Your task to perform on an android device: Show me popular videos on Youtube Image 0: 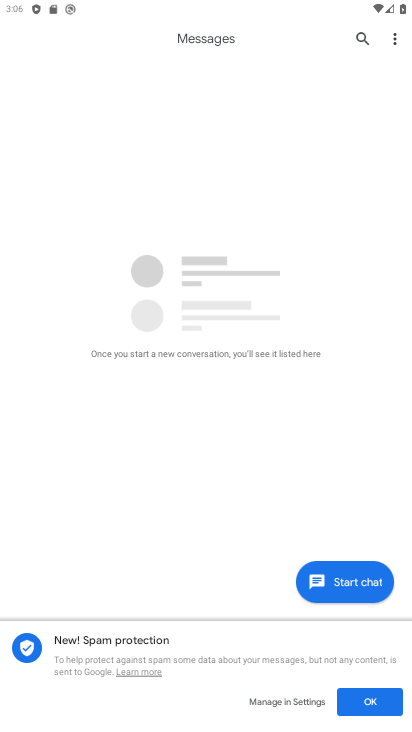
Step 0: press home button
Your task to perform on an android device: Show me popular videos on Youtube Image 1: 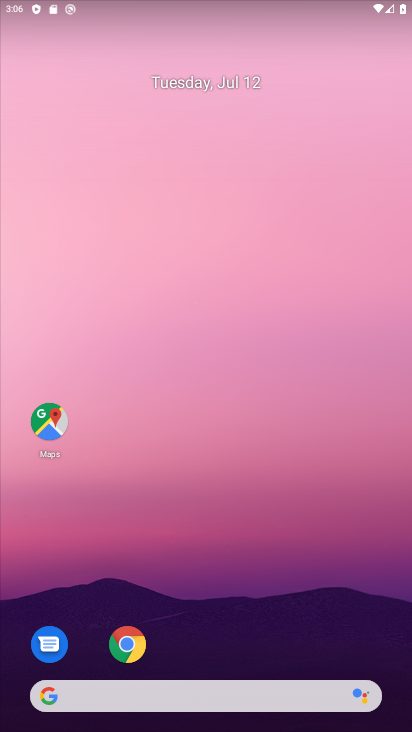
Step 1: drag from (315, 600) to (250, 98)
Your task to perform on an android device: Show me popular videos on Youtube Image 2: 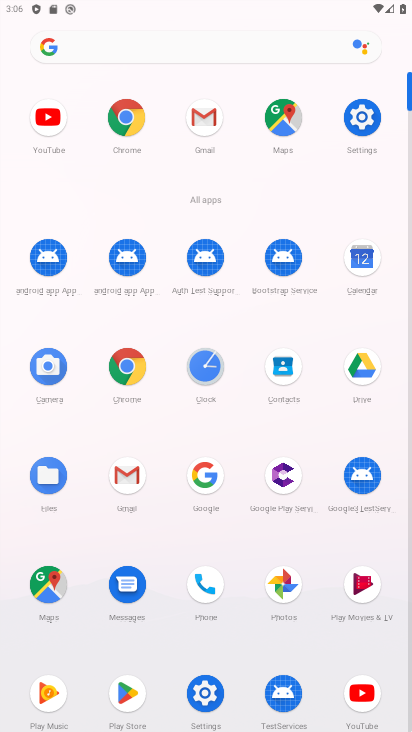
Step 2: click (47, 123)
Your task to perform on an android device: Show me popular videos on Youtube Image 3: 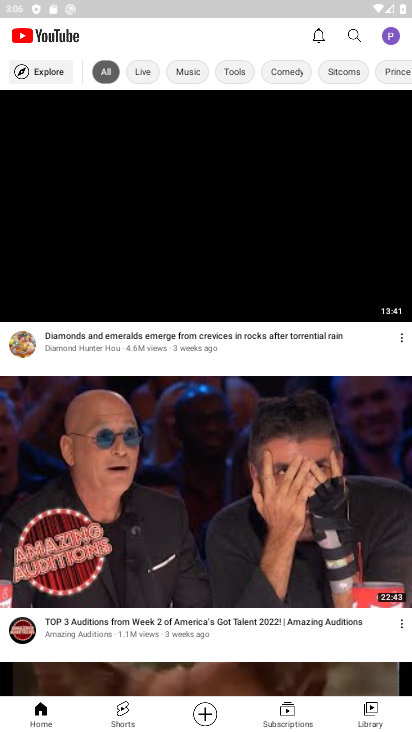
Step 3: click (53, 77)
Your task to perform on an android device: Show me popular videos on Youtube Image 4: 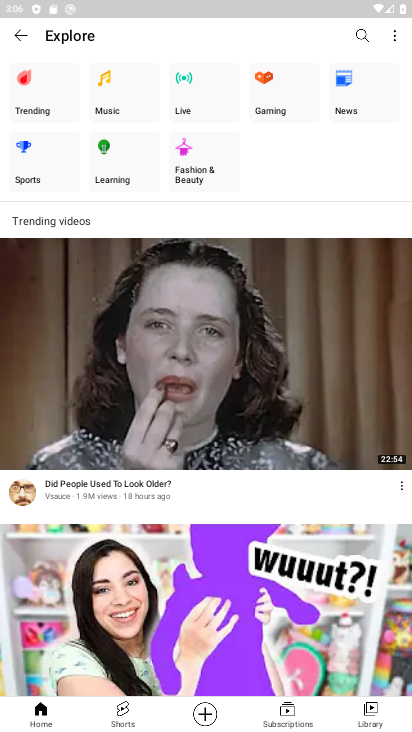
Step 4: click (36, 103)
Your task to perform on an android device: Show me popular videos on Youtube Image 5: 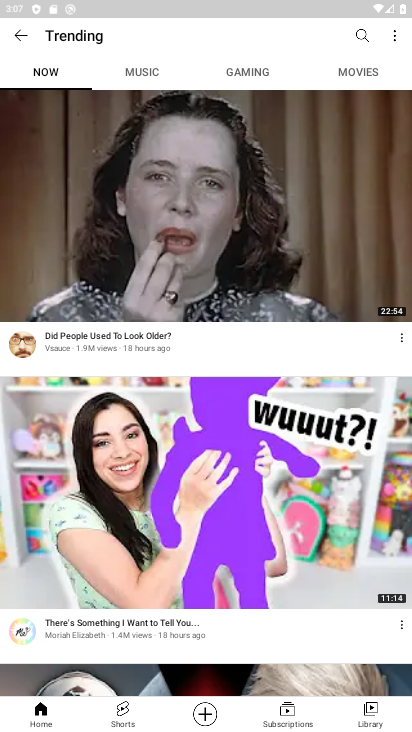
Step 5: task complete